Your task to perform on an android device: move an email to a new category in the gmail app Image 0: 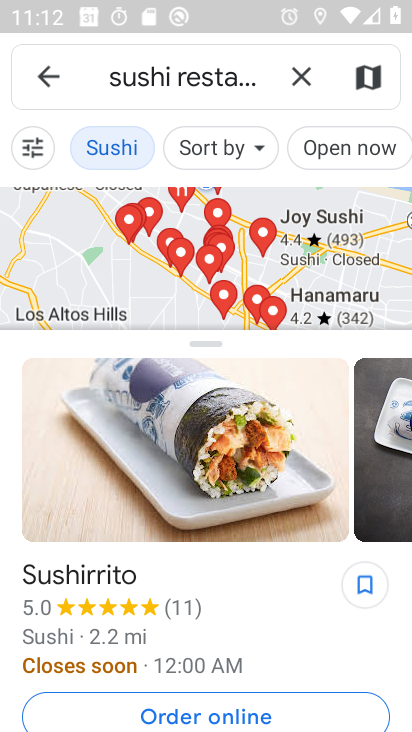
Step 0: press home button
Your task to perform on an android device: move an email to a new category in the gmail app Image 1: 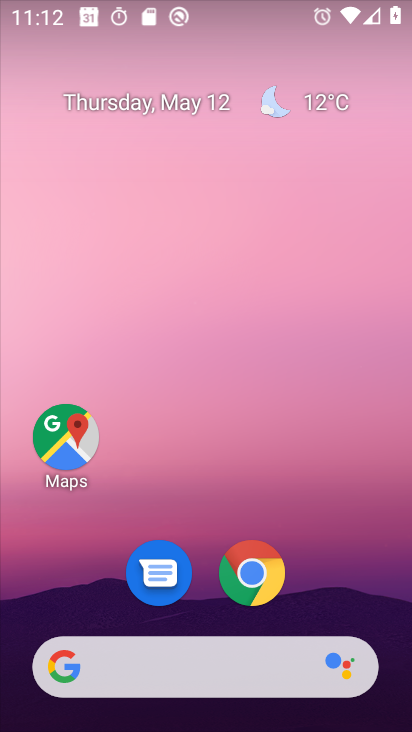
Step 1: drag from (399, 638) to (383, 293)
Your task to perform on an android device: move an email to a new category in the gmail app Image 2: 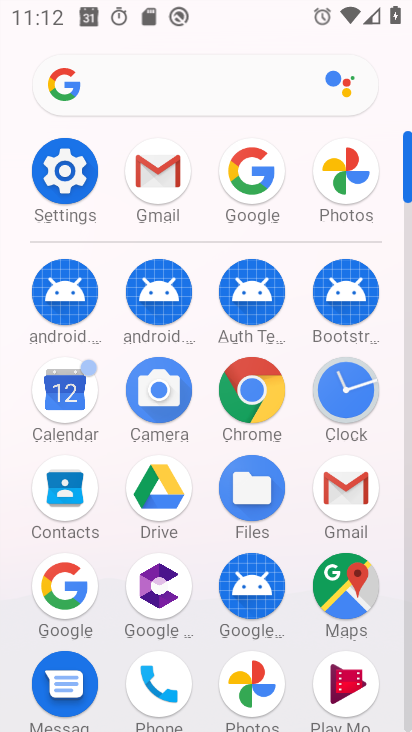
Step 2: click (342, 495)
Your task to perform on an android device: move an email to a new category in the gmail app Image 3: 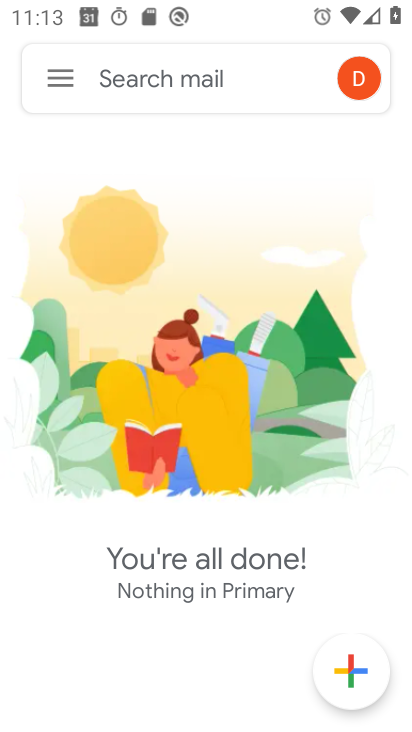
Step 3: task complete